Your task to perform on an android device: turn on translation in the chrome app Image 0: 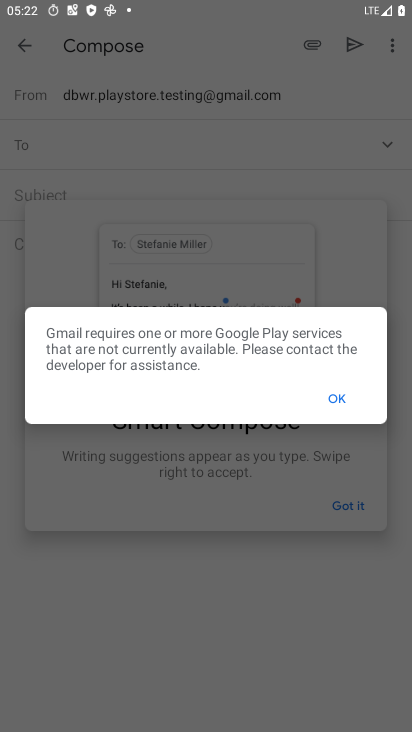
Step 0: press home button
Your task to perform on an android device: turn on translation in the chrome app Image 1: 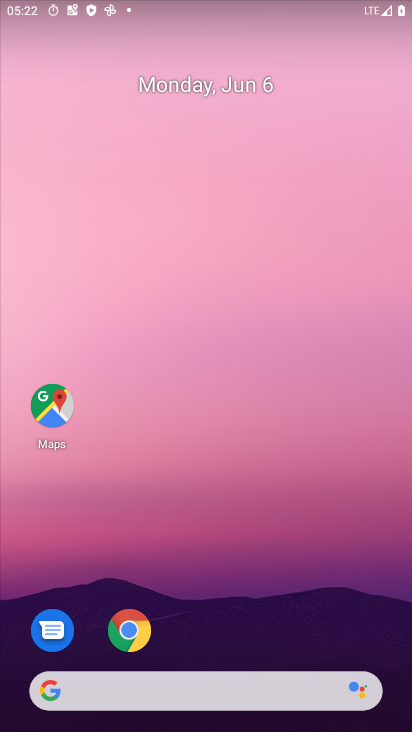
Step 1: drag from (226, 618) to (291, 57)
Your task to perform on an android device: turn on translation in the chrome app Image 2: 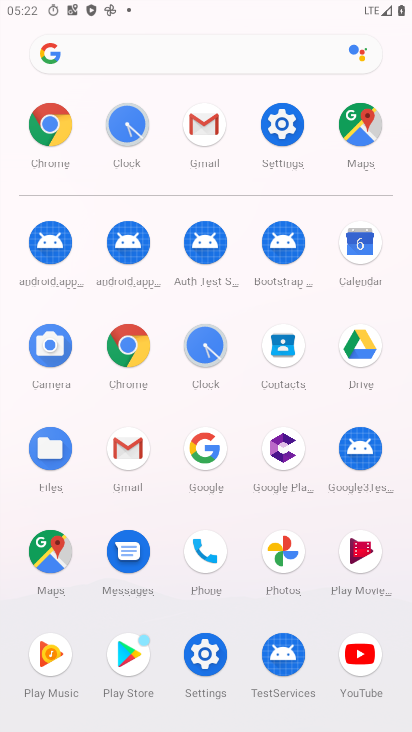
Step 2: click (133, 341)
Your task to perform on an android device: turn on translation in the chrome app Image 3: 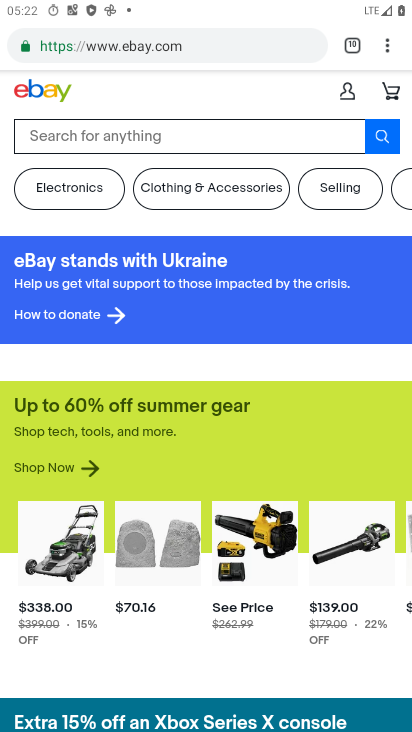
Step 3: drag from (386, 43) to (231, 552)
Your task to perform on an android device: turn on translation in the chrome app Image 4: 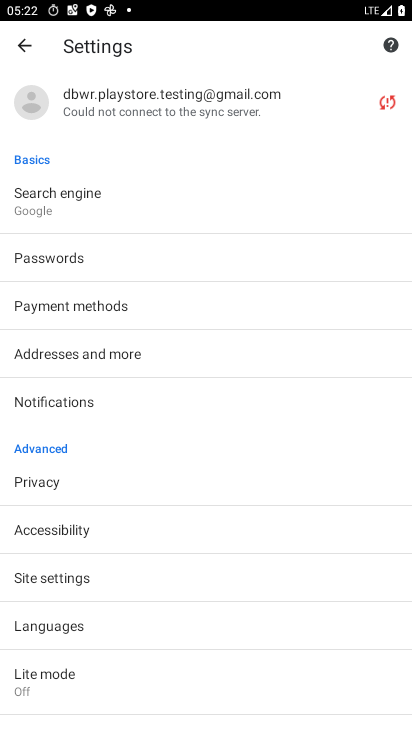
Step 4: click (98, 624)
Your task to perform on an android device: turn on translation in the chrome app Image 5: 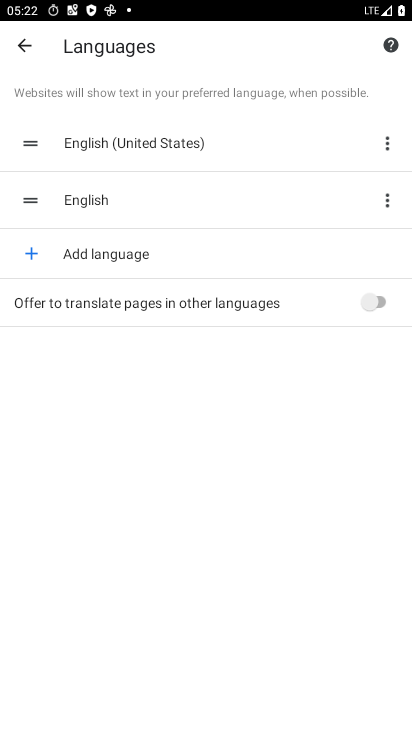
Step 5: click (373, 292)
Your task to perform on an android device: turn on translation in the chrome app Image 6: 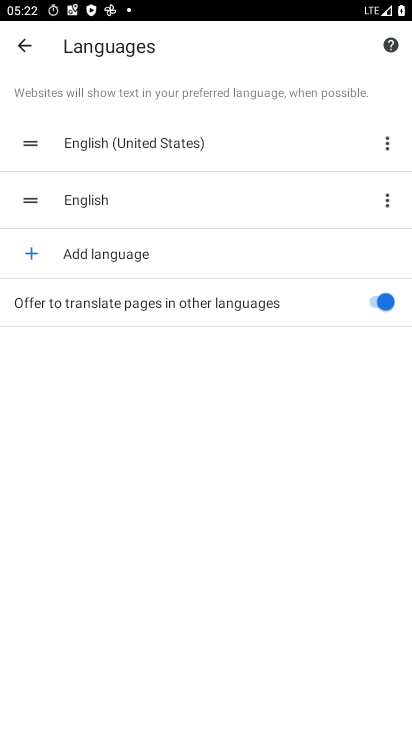
Step 6: task complete